Your task to perform on an android device: all mails in gmail Image 0: 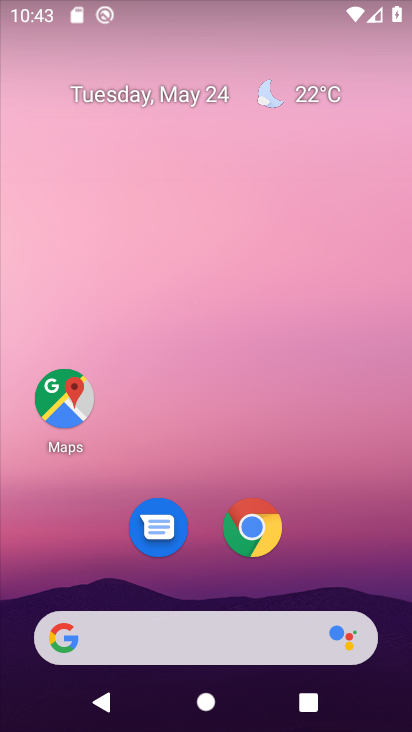
Step 0: press home button
Your task to perform on an android device: all mails in gmail Image 1: 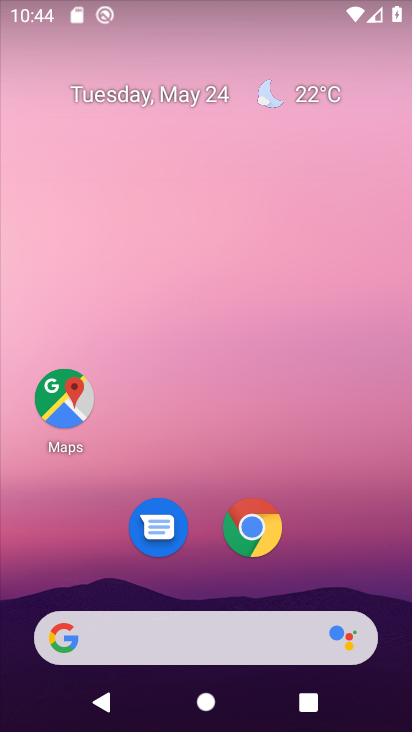
Step 1: drag from (192, 631) to (305, 116)
Your task to perform on an android device: all mails in gmail Image 2: 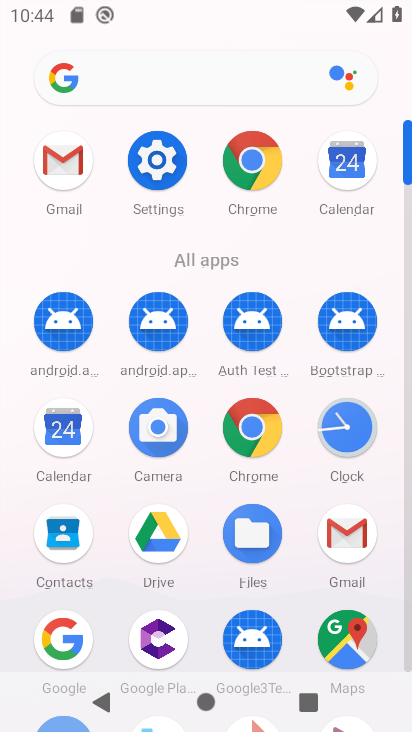
Step 2: click (62, 178)
Your task to perform on an android device: all mails in gmail Image 3: 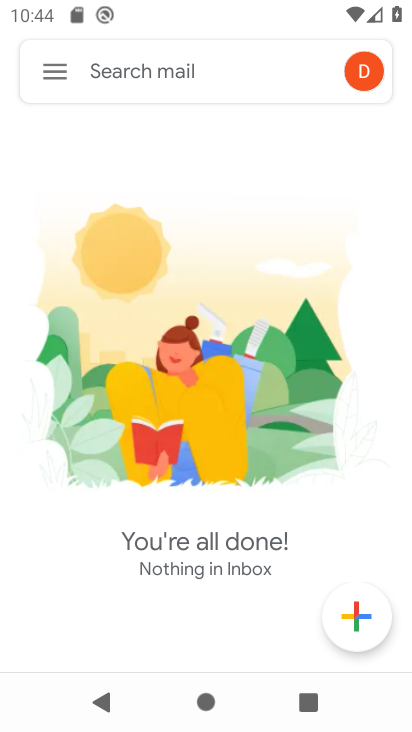
Step 3: click (54, 74)
Your task to perform on an android device: all mails in gmail Image 4: 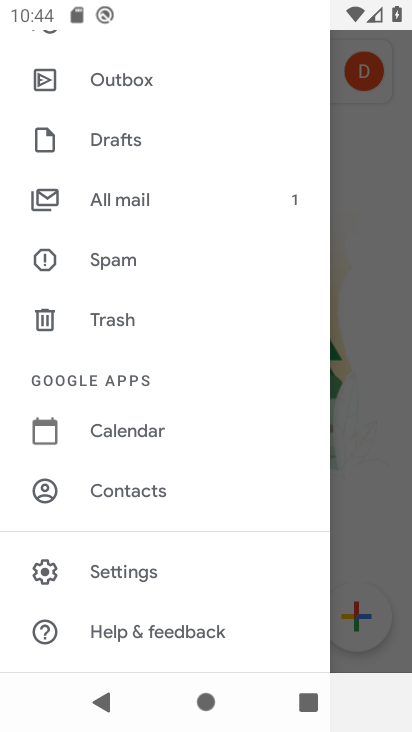
Step 4: click (117, 198)
Your task to perform on an android device: all mails in gmail Image 5: 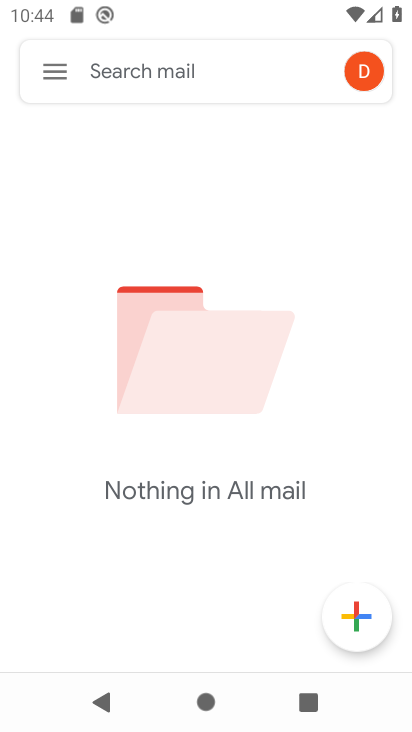
Step 5: task complete